Your task to perform on an android device: Open settings Image 0: 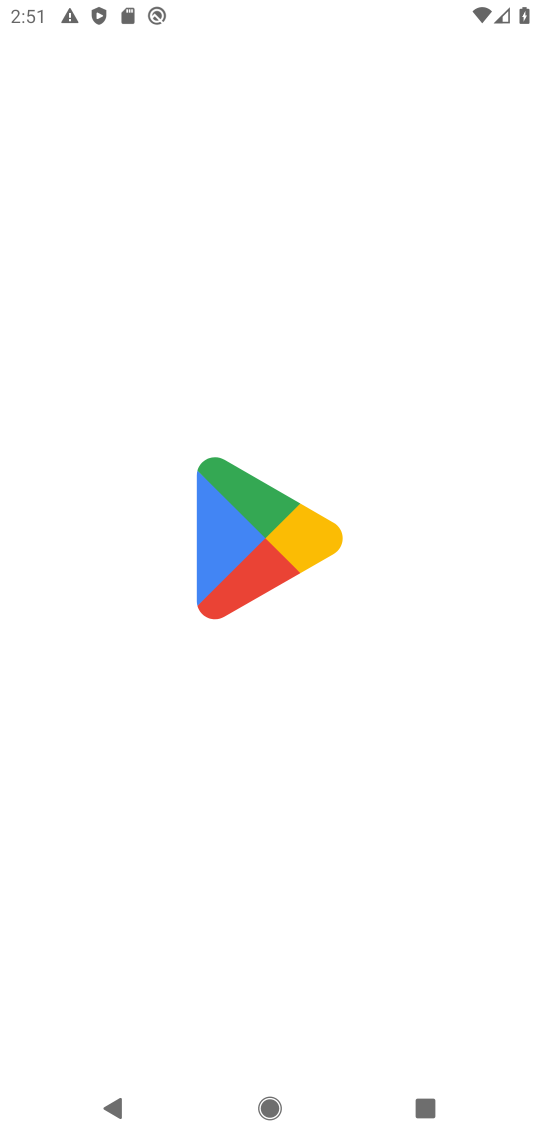
Step 0: press home button
Your task to perform on an android device: Open settings Image 1: 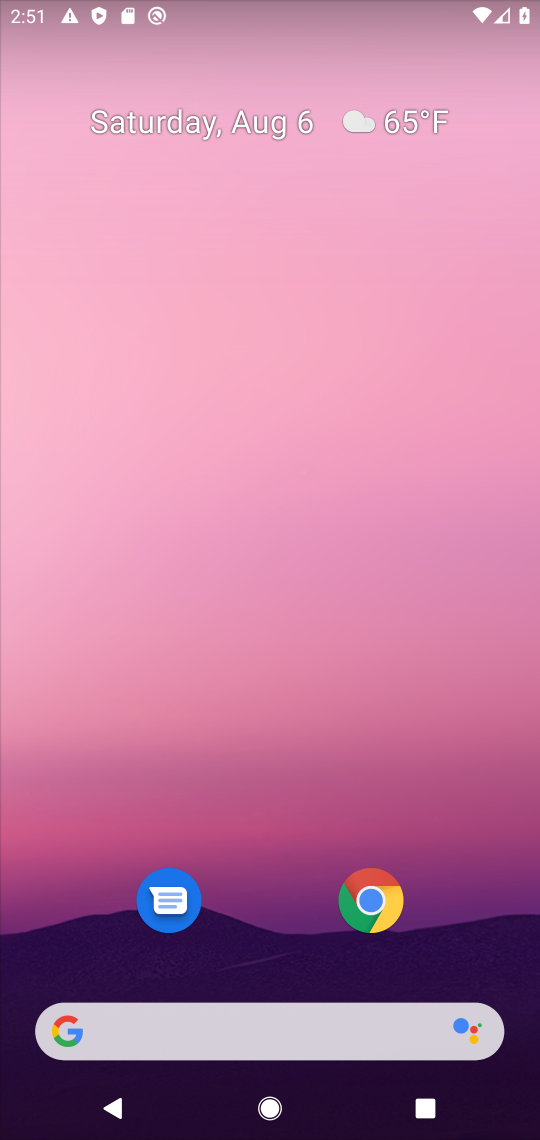
Step 1: drag from (267, 921) to (304, 196)
Your task to perform on an android device: Open settings Image 2: 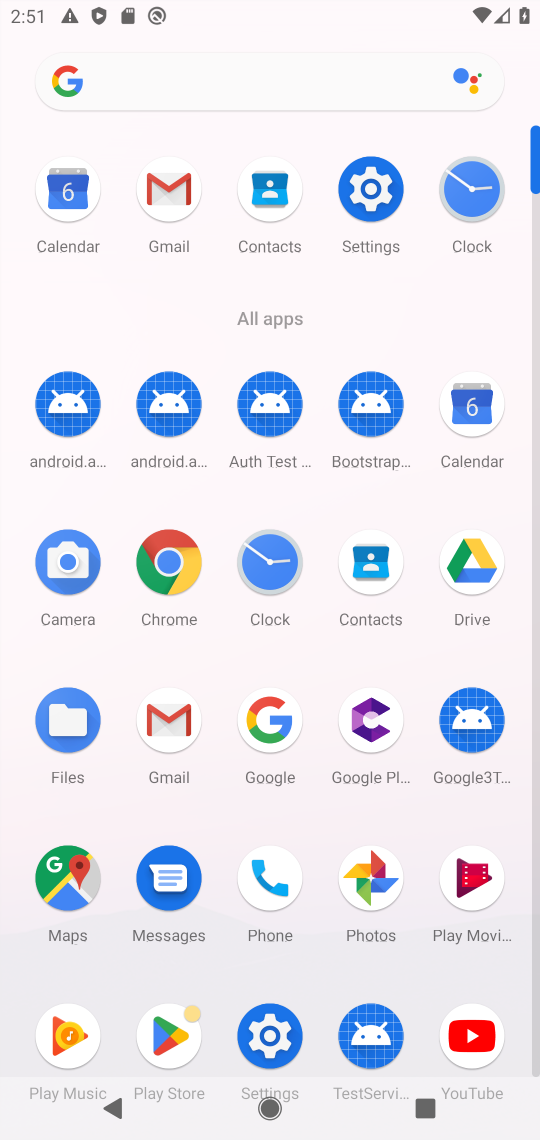
Step 2: click (371, 200)
Your task to perform on an android device: Open settings Image 3: 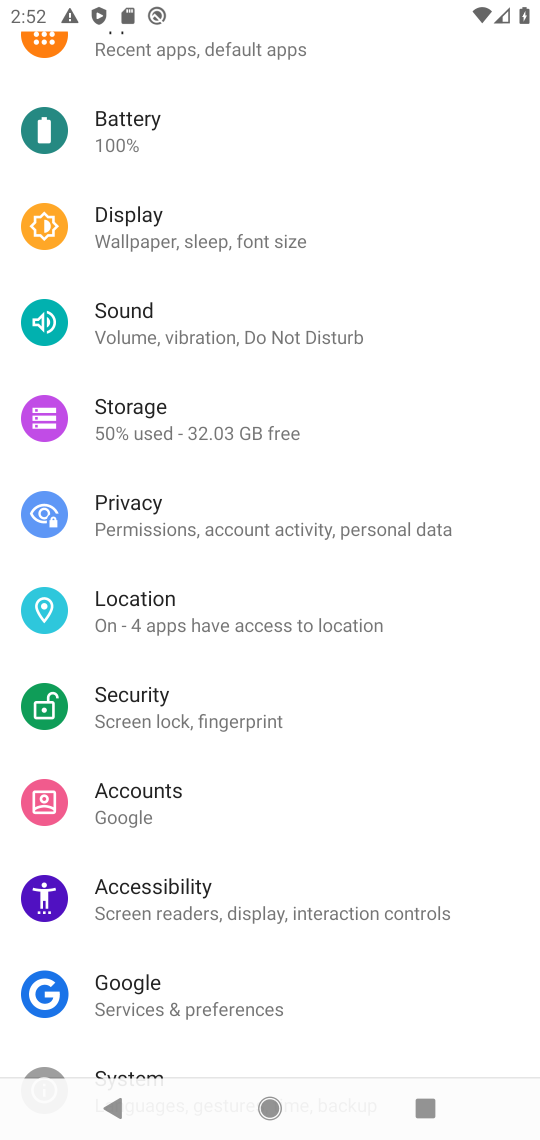
Step 3: task complete